Your task to perform on an android device: add a label to a message in the gmail app Image 0: 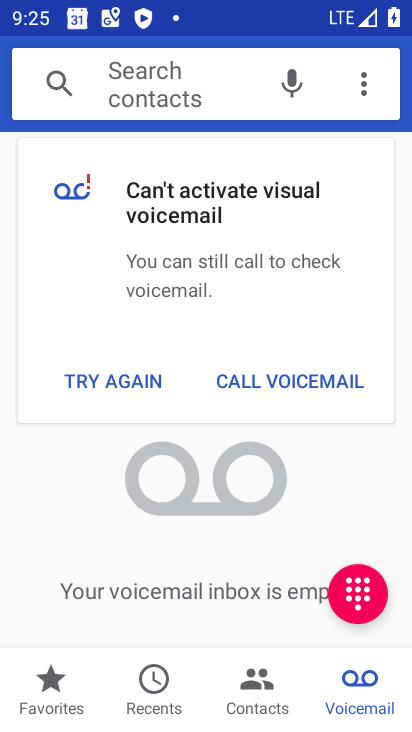
Step 0: press back button
Your task to perform on an android device: add a label to a message in the gmail app Image 1: 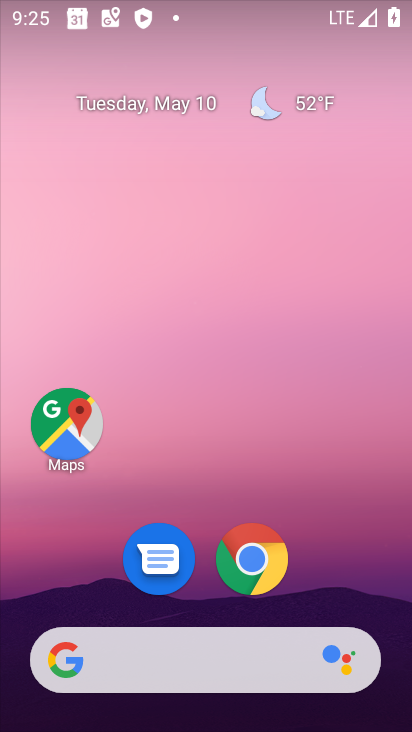
Step 1: drag from (337, 542) to (262, 12)
Your task to perform on an android device: add a label to a message in the gmail app Image 2: 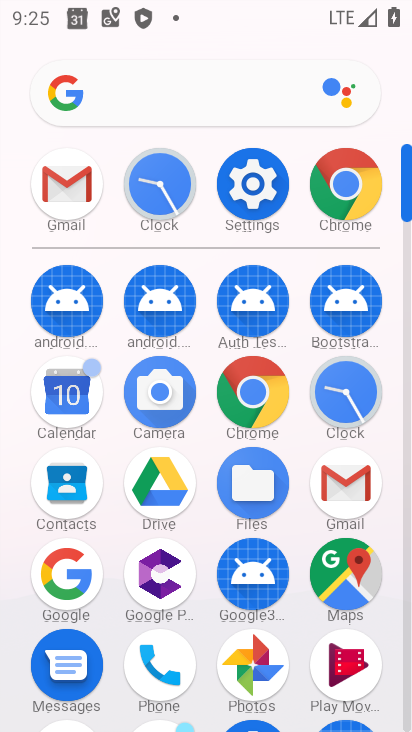
Step 2: drag from (7, 543) to (28, 292)
Your task to perform on an android device: add a label to a message in the gmail app Image 3: 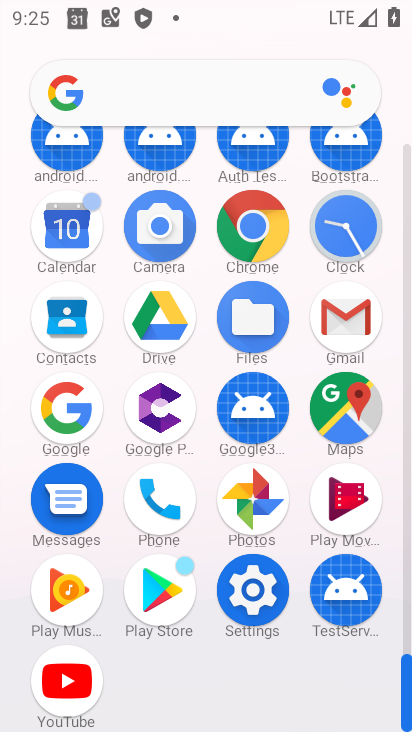
Step 3: click (345, 311)
Your task to perform on an android device: add a label to a message in the gmail app Image 4: 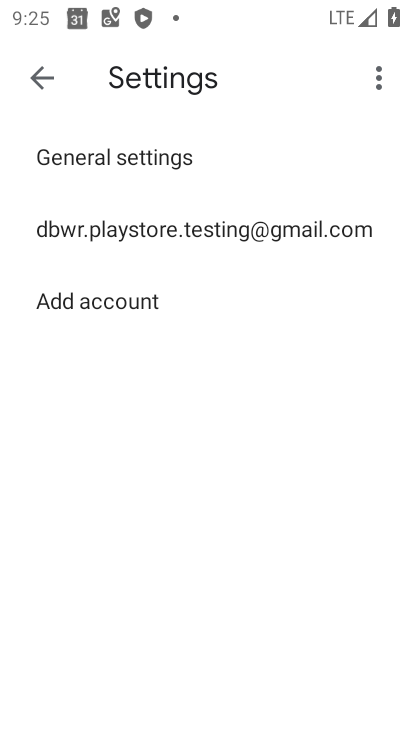
Step 4: click (37, 67)
Your task to perform on an android device: add a label to a message in the gmail app Image 5: 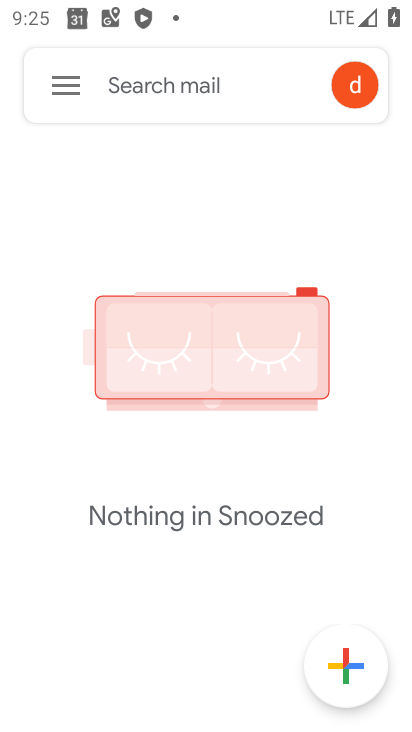
Step 5: click (52, 82)
Your task to perform on an android device: add a label to a message in the gmail app Image 6: 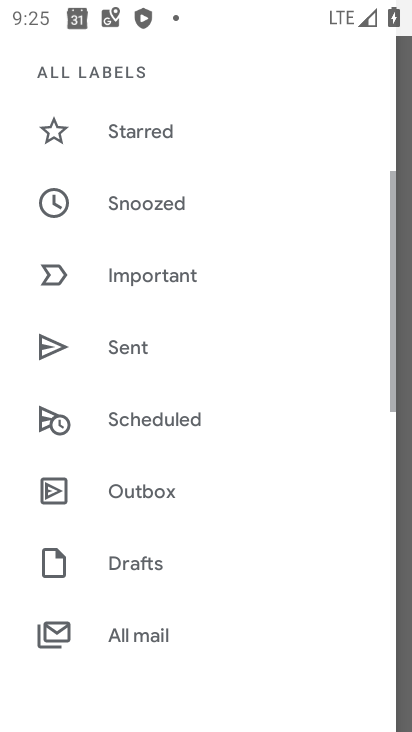
Step 6: drag from (202, 127) to (211, 588)
Your task to perform on an android device: add a label to a message in the gmail app Image 7: 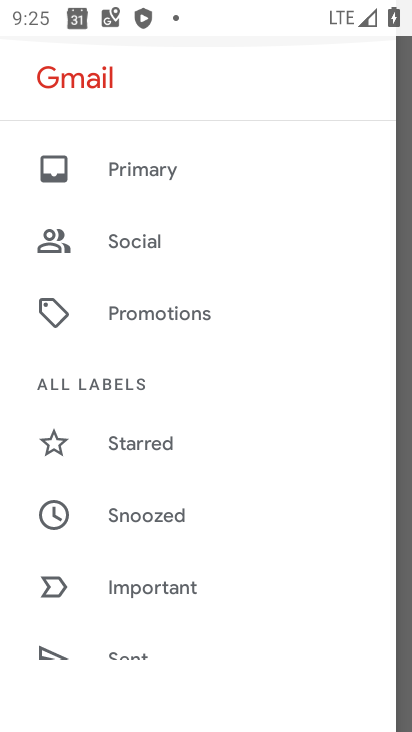
Step 7: click (184, 164)
Your task to perform on an android device: add a label to a message in the gmail app Image 8: 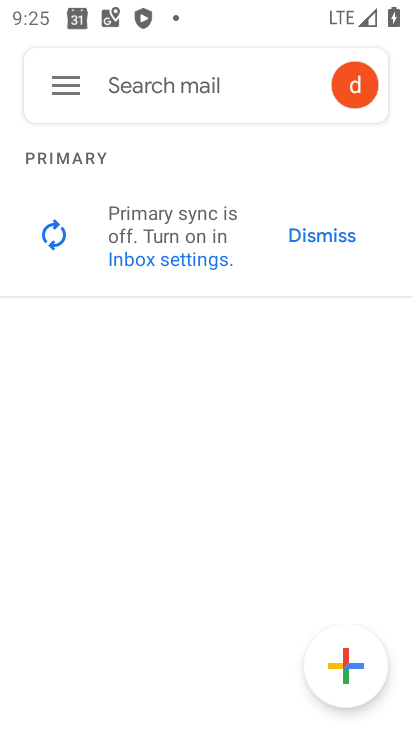
Step 8: click (72, 84)
Your task to perform on an android device: add a label to a message in the gmail app Image 9: 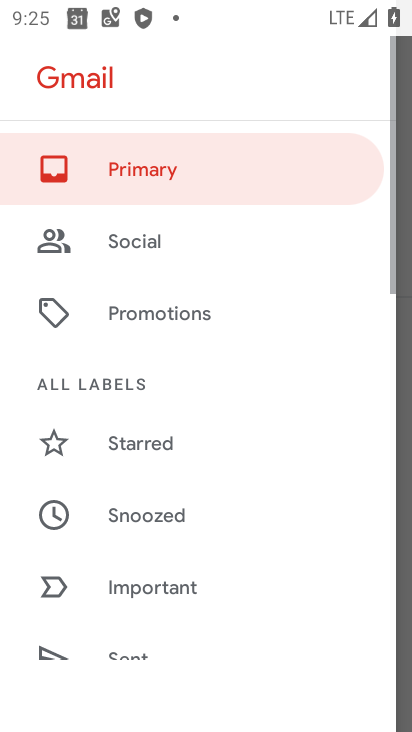
Step 9: click (149, 253)
Your task to perform on an android device: add a label to a message in the gmail app Image 10: 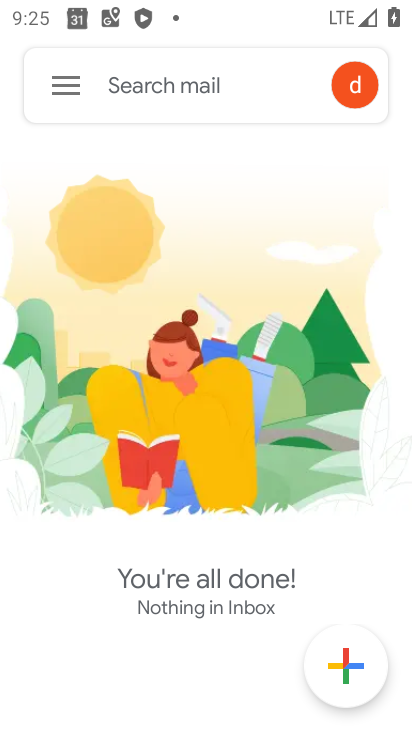
Step 10: click (58, 87)
Your task to perform on an android device: add a label to a message in the gmail app Image 11: 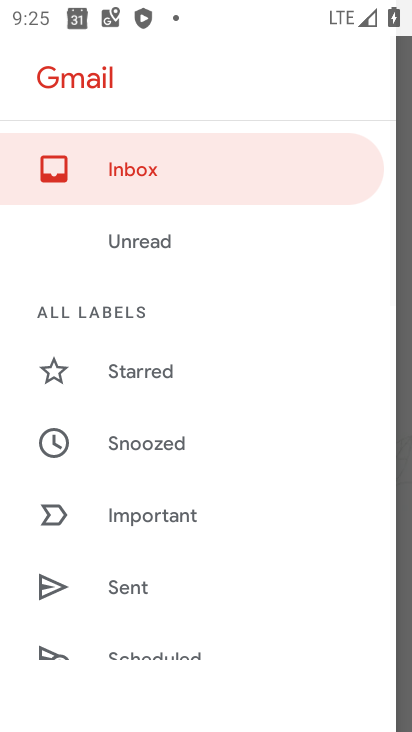
Step 11: click (160, 250)
Your task to perform on an android device: add a label to a message in the gmail app Image 12: 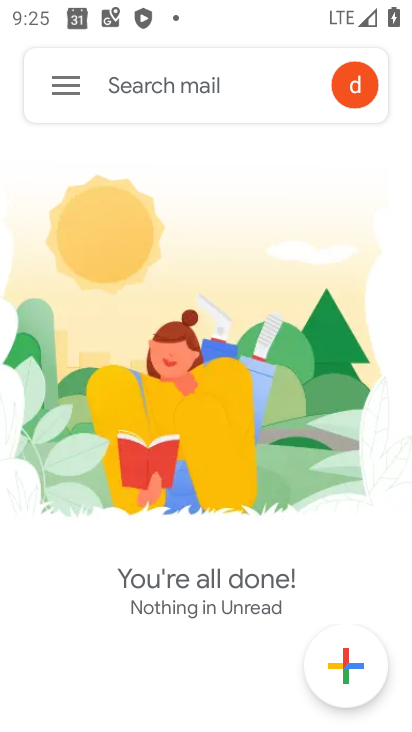
Step 12: click (68, 79)
Your task to perform on an android device: add a label to a message in the gmail app Image 13: 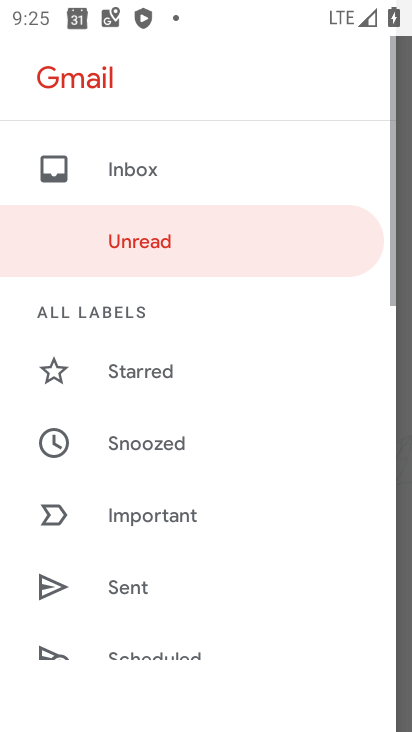
Step 13: task complete